Your task to perform on an android device: Search for Italian restaurants on Maps Image 0: 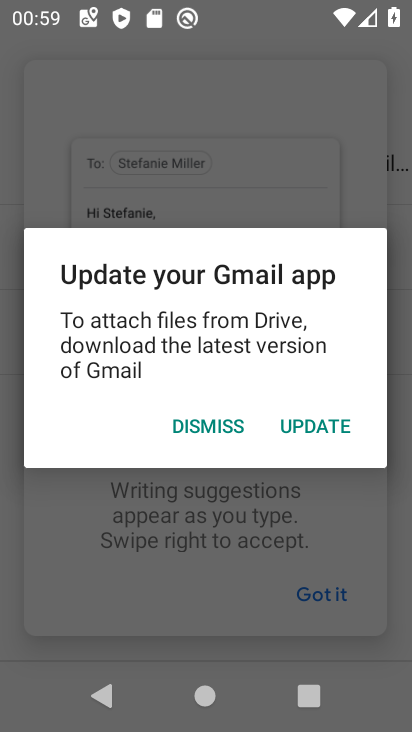
Step 0: press home button
Your task to perform on an android device: Search for Italian restaurants on Maps Image 1: 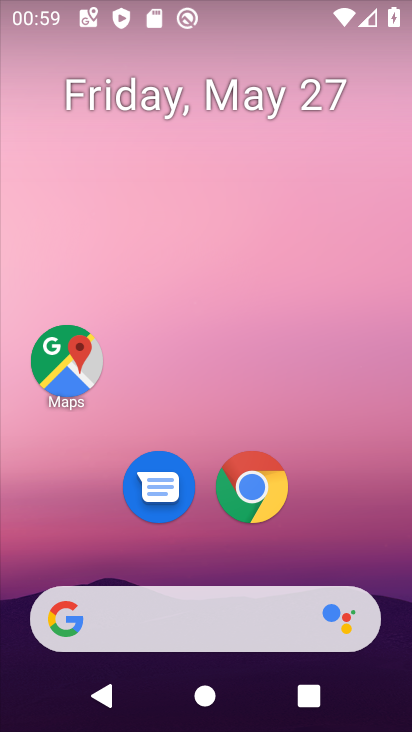
Step 1: click (64, 360)
Your task to perform on an android device: Search for Italian restaurants on Maps Image 2: 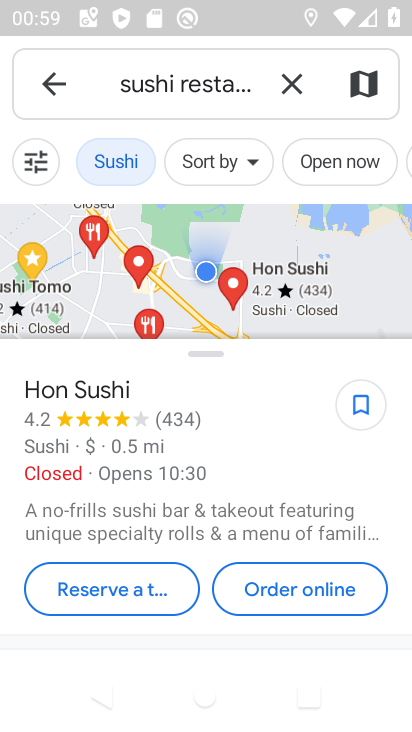
Step 2: click (280, 102)
Your task to perform on an android device: Search for Italian restaurants on Maps Image 3: 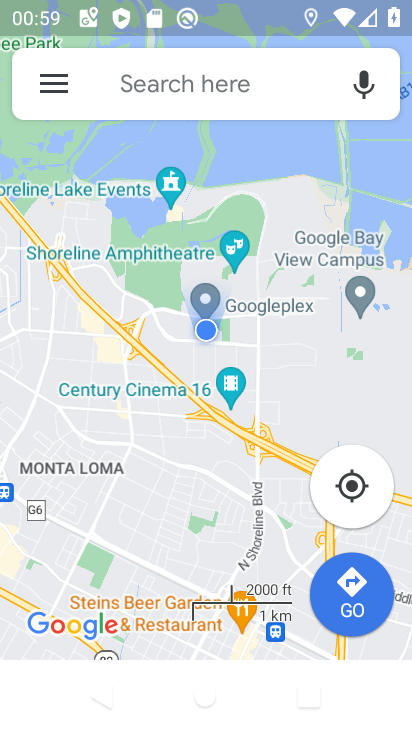
Step 3: click (208, 86)
Your task to perform on an android device: Search for Italian restaurants on Maps Image 4: 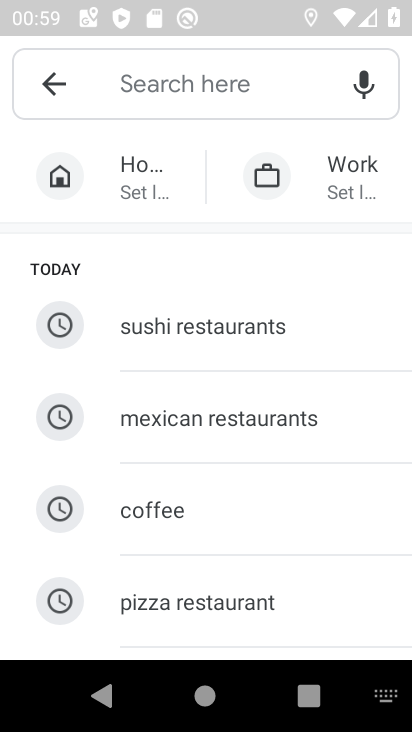
Step 4: type "Italian restaurants"
Your task to perform on an android device: Search for Italian restaurants on Maps Image 5: 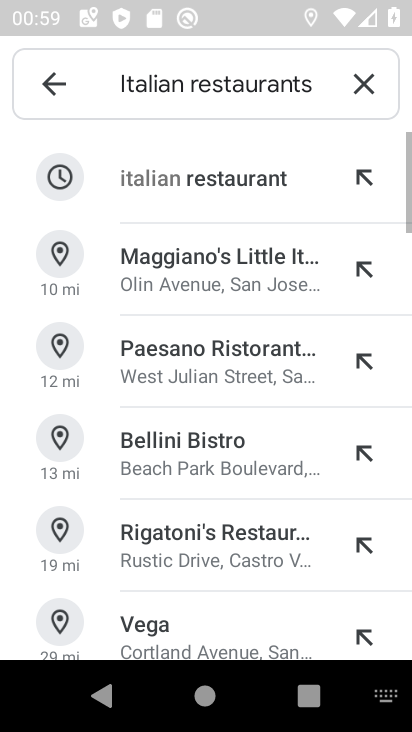
Step 5: click (225, 189)
Your task to perform on an android device: Search for Italian restaurants on Maps Image 6: 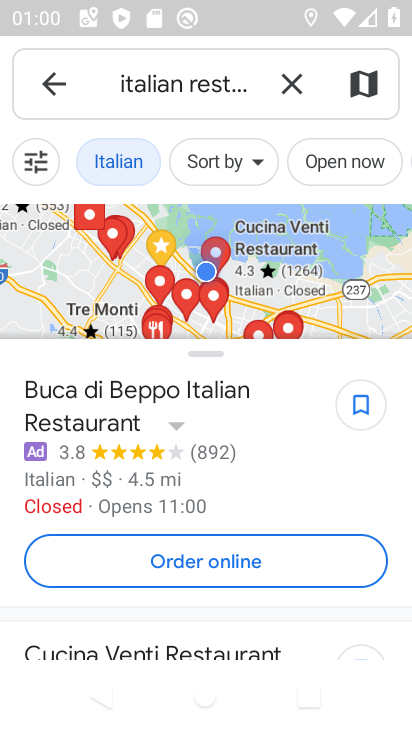
Step 6: task complete